Your task to perform on an android device: toggle notifications settings in the gmail app Image 0: 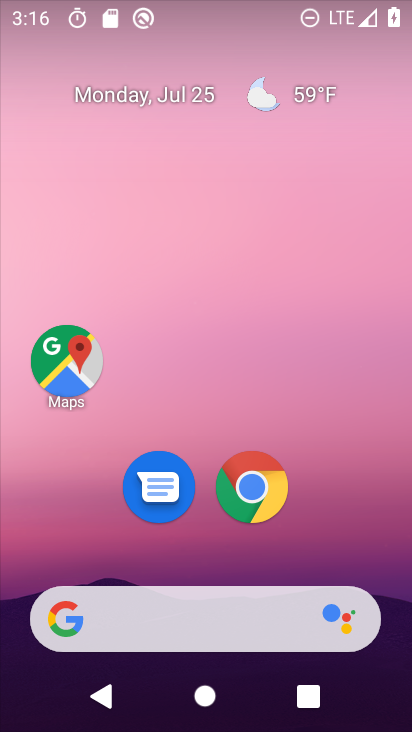
Step 0: drag from (168, 562) to (251, 16)
Your task to perform on an android device: toggle notifications settings in the gmail app Image 1: 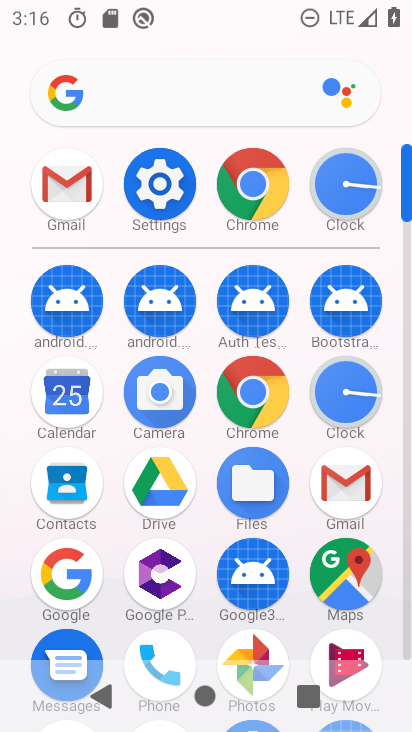
Step 1: click (60, 179)
Your task to perform on an android device: toggle notifications settings in the gmail app Image 2: 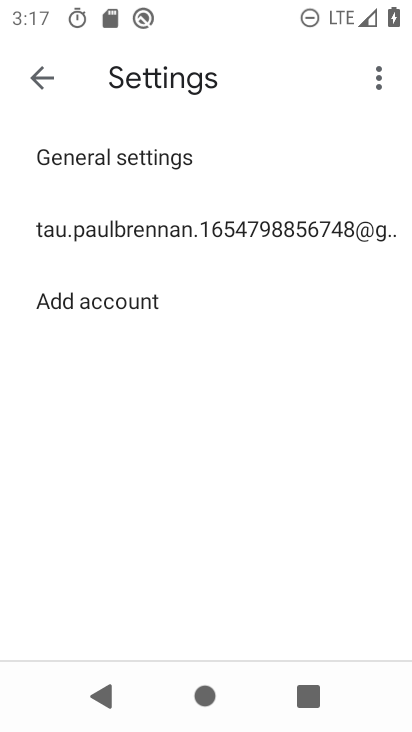
Step 2: click (148, 227)
Your task to perform on an android device: toggle notifications settings in the gmail app Image 3: 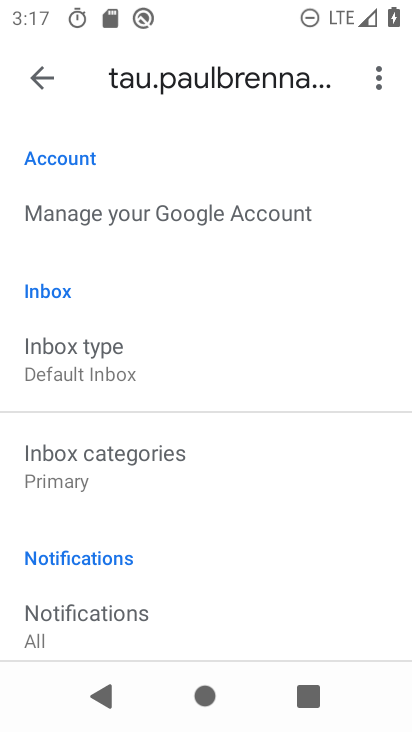
Step 3: drag from (48, 607) to (148, 250)
Your task to perform on an android device: toggle notifications settings in the gmail app Image 4: 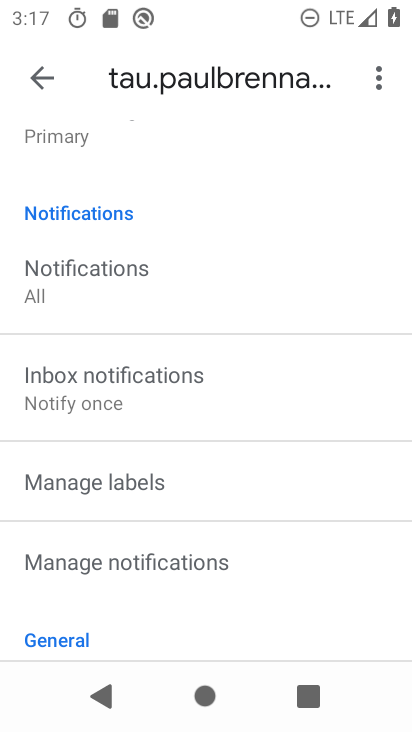
Step 4: click (110, 555)
Your task to perform on an android device: toggle notifications settings in the gmail app Image 5: 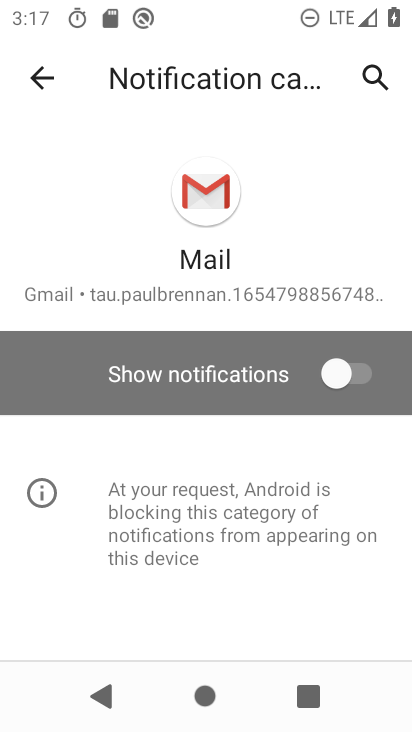
Step 5: click (348, 368)
Your task to perform on an android device: toggle notifications settings in the gmail app Image 6: 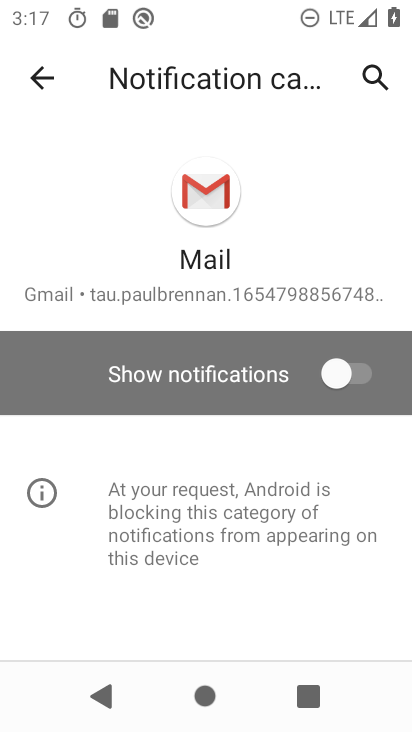
Step 6: click (335, 377)
Your task to perform on an android device: toggle notifications settings in the gmail app Image 7: 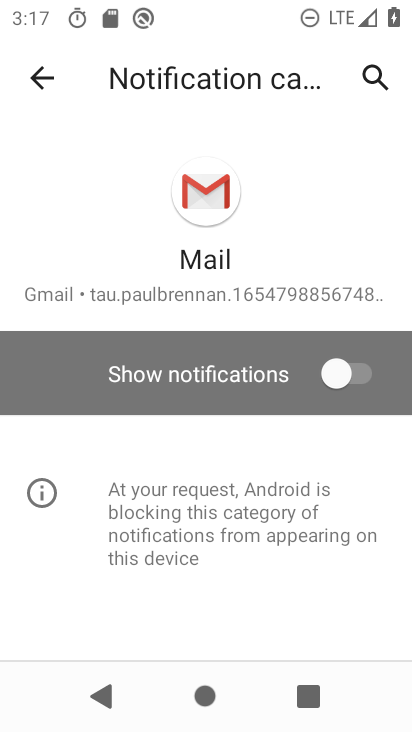
Step 7: click (336, 378)
Your task to perform on an android device: toggle notifications settings in the gmail app Image 8: 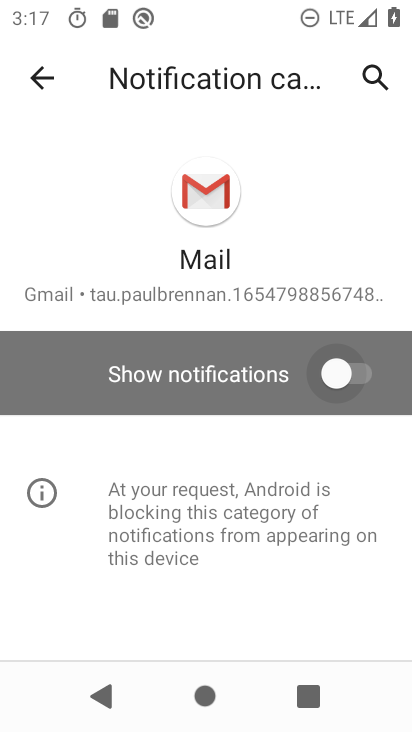
Step 8: click (336, 378)
Your task to perform on an android device: toggle notifications settings in the gmail app Image 9: 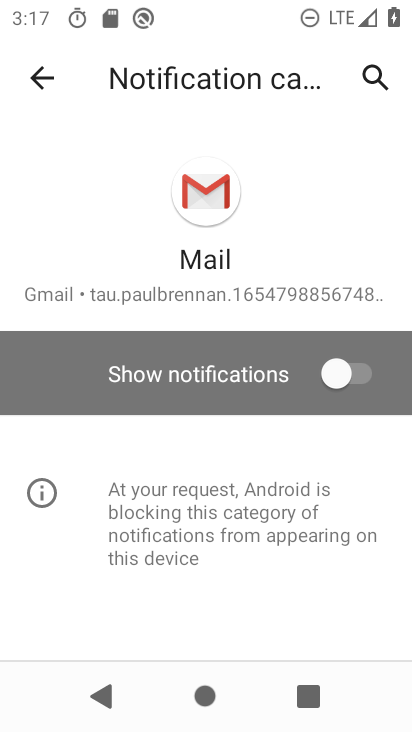
Step 9: click (336, 378)
Your task to perform on an android device: toggle notifications settings in the gmail app Image 10: 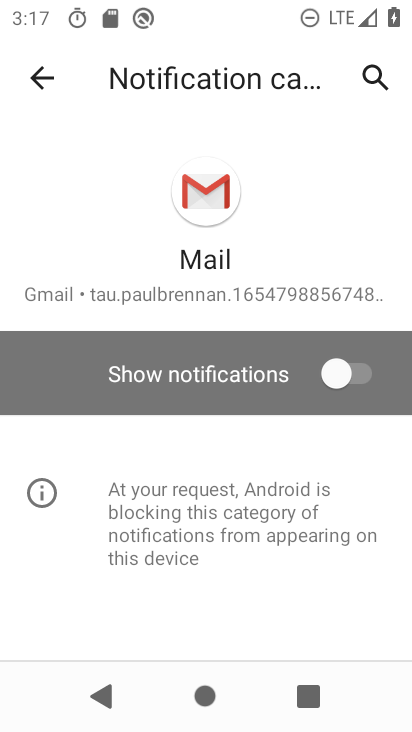
Step 10: task complete